Your task to perform on an android device: Go to wifi settings Image 0: 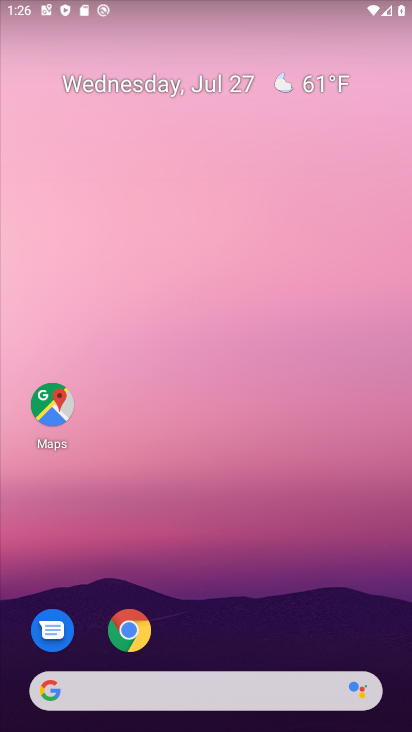
Step 0: drag from (195, 674) to (222, 215)
Your task to perform on an android device: Go to wifi settings Image 1: 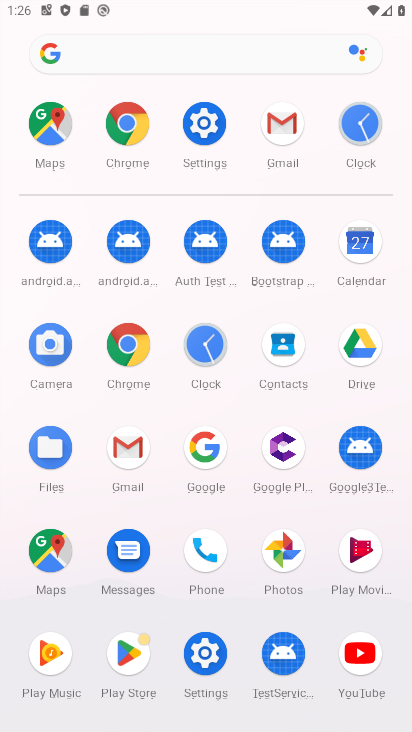
Step 1: click (198, 125)
Your task to perform on an android device: Go to wifi settings Image 2: 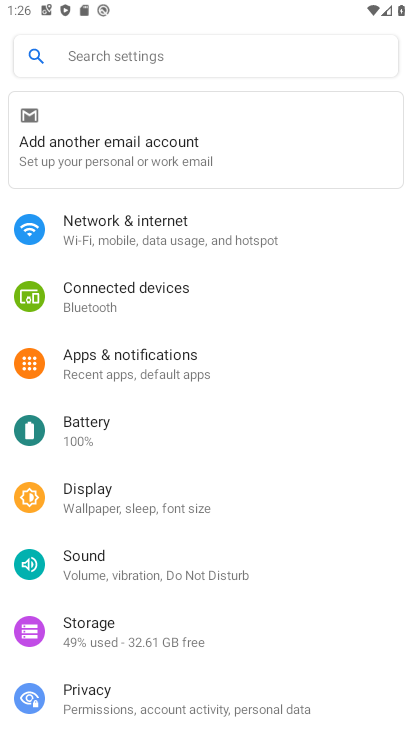
Step 2: click (130, 231)
Your task to perform on an android device: Go to wifi settings Image 3: 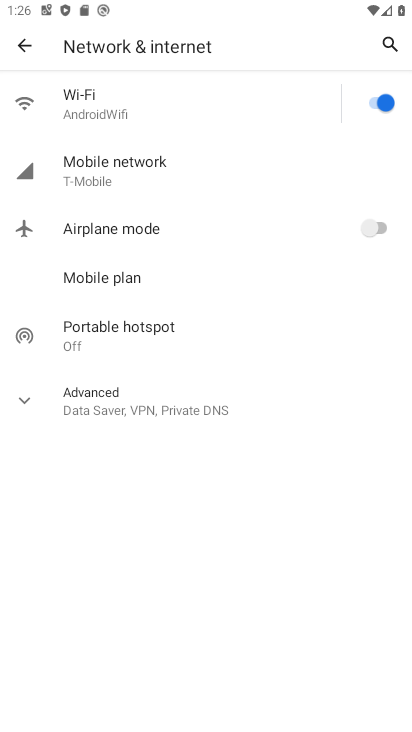
Step 3: click (81, 97)
Your task to perform on an android device: Go to wifi settings Image 4: 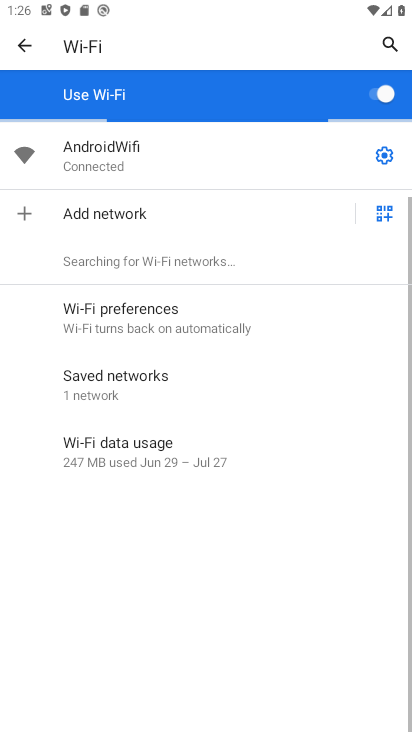
Step 4: click (383, 154)
Your task to perform on an android device: Go to wifi settings Image 5: 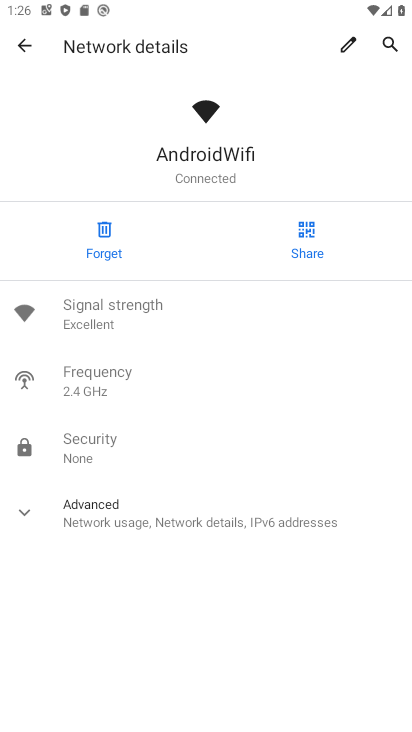
Step 5: click (89, 511)
Your task to perform on an android device: Go to wifi settings Image 6: 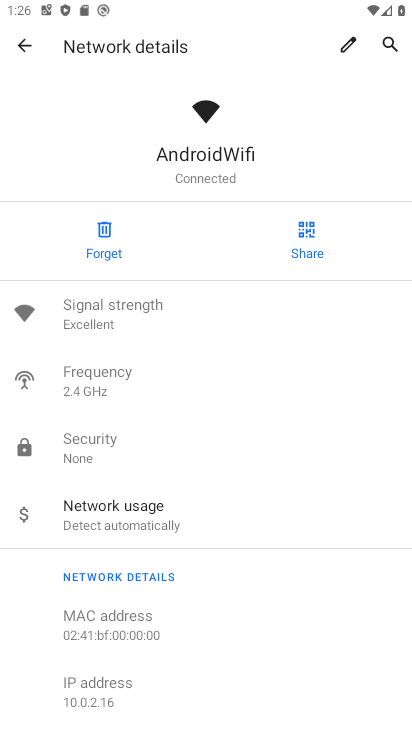
Step 6: task complete